Your task to perform on an android device: find photos in the google photos app Image 0: 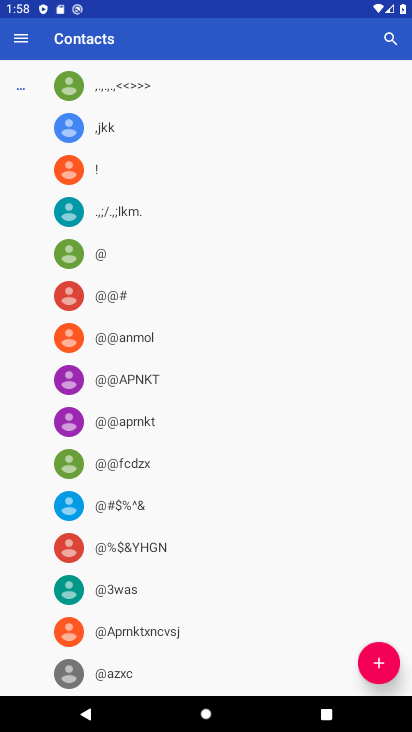
Step 0: press home button
Your task to perform on an android device: find photos in the google photos app Image 1: 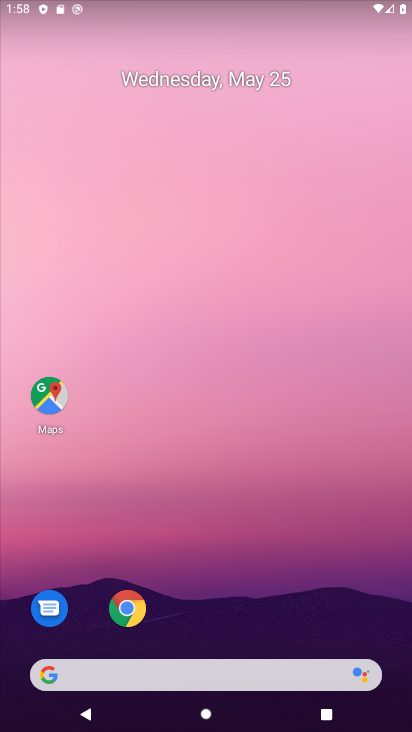
Step 1: drag from (270, 664) to (326, 197)
Your task to perform on an android device: find photos in the google photos app Image 2: 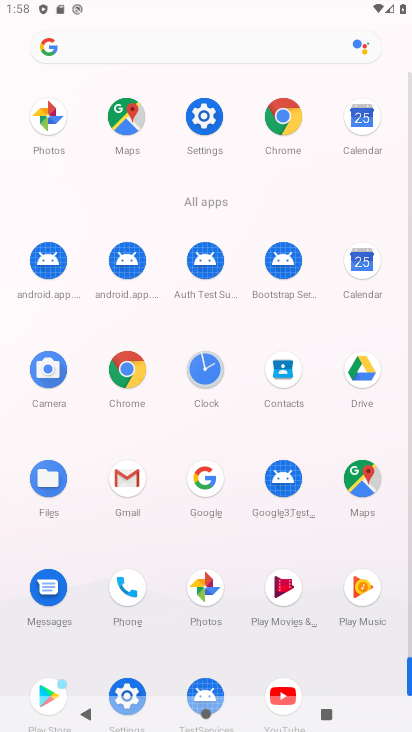
Step 2: click (32, 118)
Your task to perform on an android device: find photos in the google photos app Image 3: 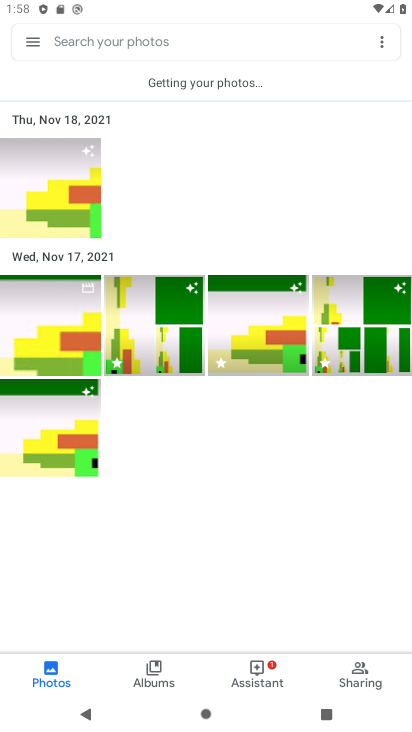
Step 3: task complete